Your task to perform on an android device: empty trash in google photos Image 0: 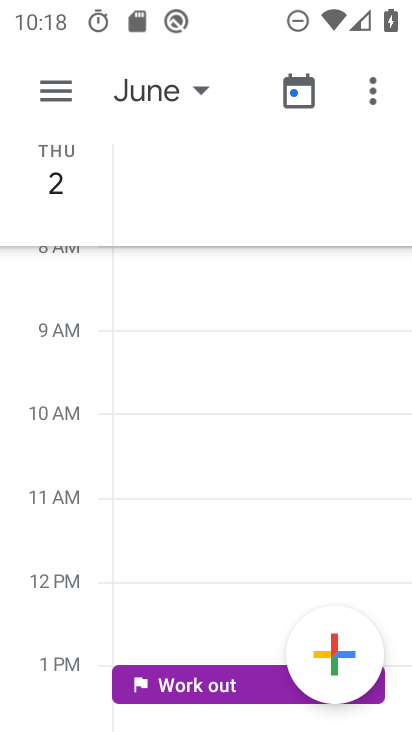
Step 0: press home button
Your task to perform on an android device: empty trash in google photos Image 1: 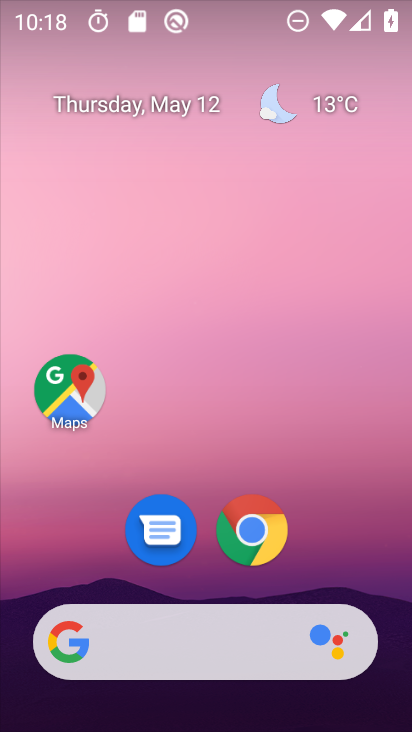
Step 1: drag from (354, 501) to (294, 72)
Your task to perform on an android device: empty trash in google photos Image 2: 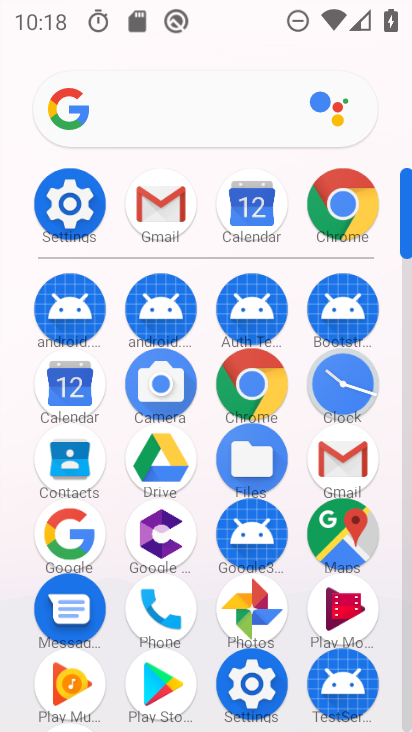
Step 2: click (243, 583)
Your task to perform on an android device: empty trash in google photos Image 3: 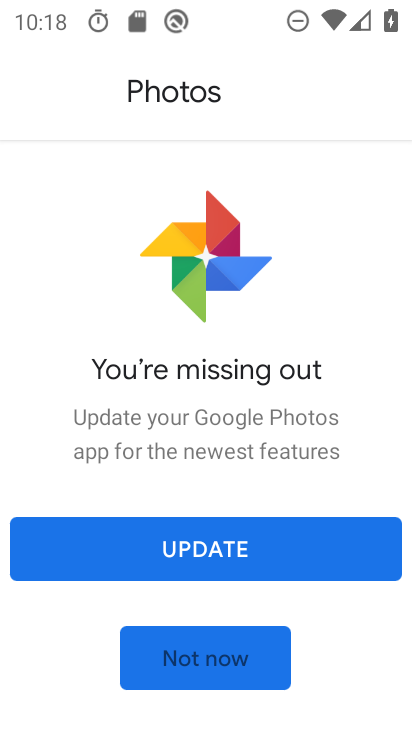
Step 3: click (199, 543)
Your task to perform on an android device: empty trash in google photos Image 4: 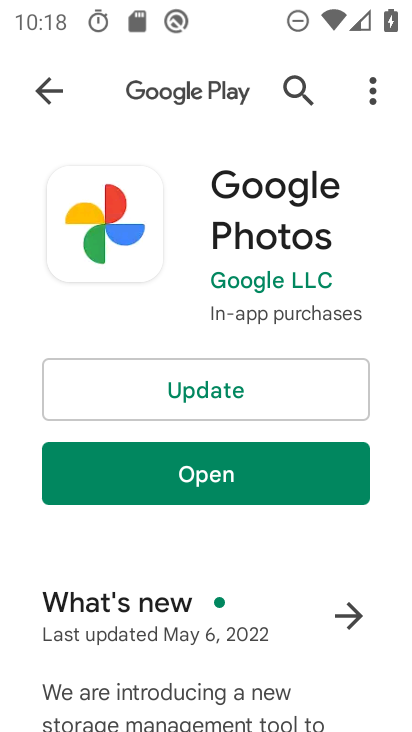
Step 4: click (221, 380)
Your task to perform on an android device: empty trash in google photos Image 5: 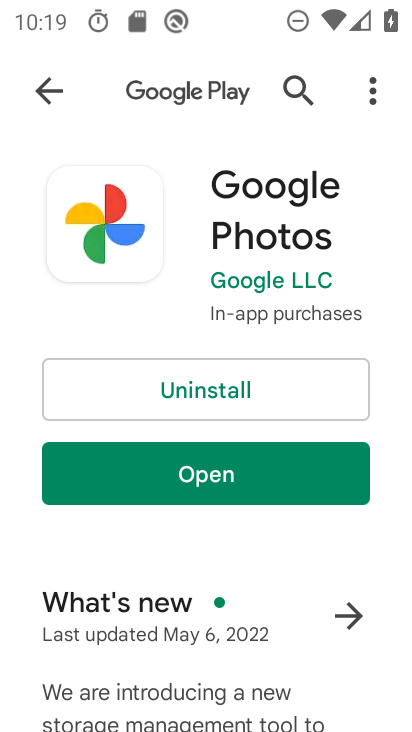
Step 5: click (198, 487)
Your task to perform on an android device: empty trash in google photos Image 6: 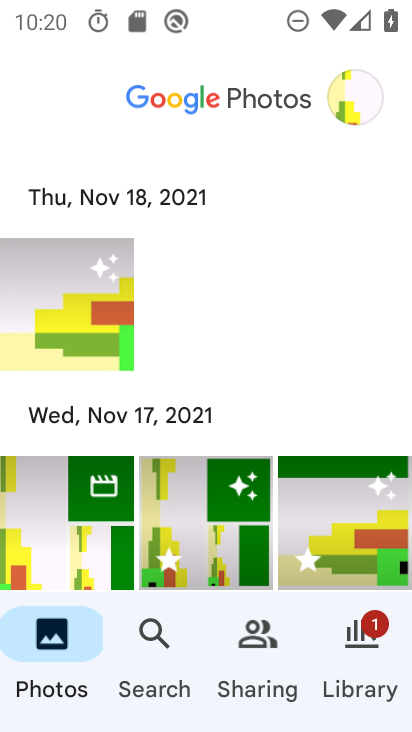
Step 6: click (364, 658)
Your task to perform on an android device: empty trash in google photos Image 7: 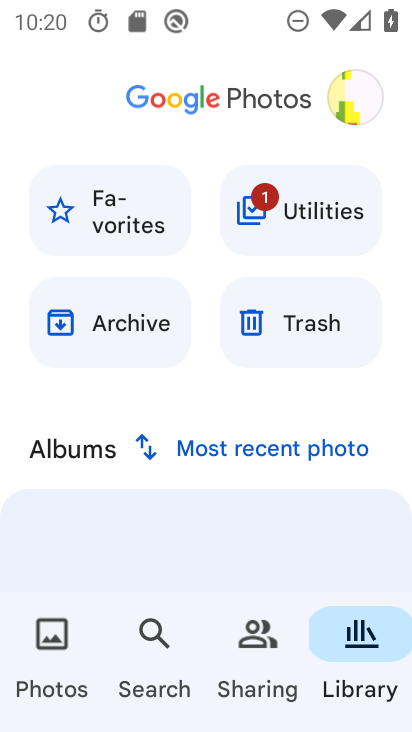
Step 7: click (292, 328)
Your task to perform on an android device: empty trash in google photos Image 8: 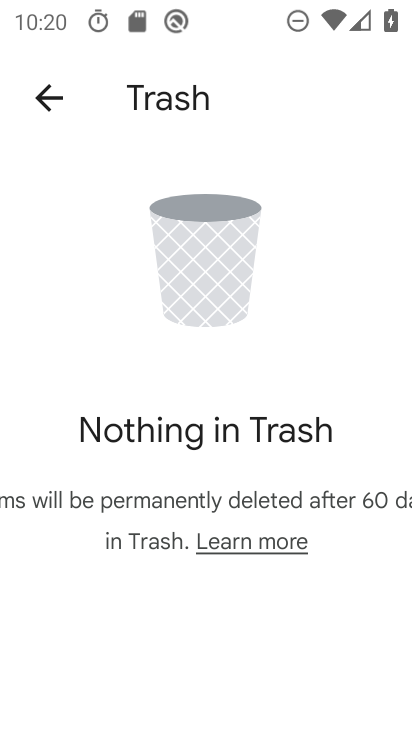
Step 8: task complete